Your task to perform on an android device: open a new tab in the chrome app Image 0: 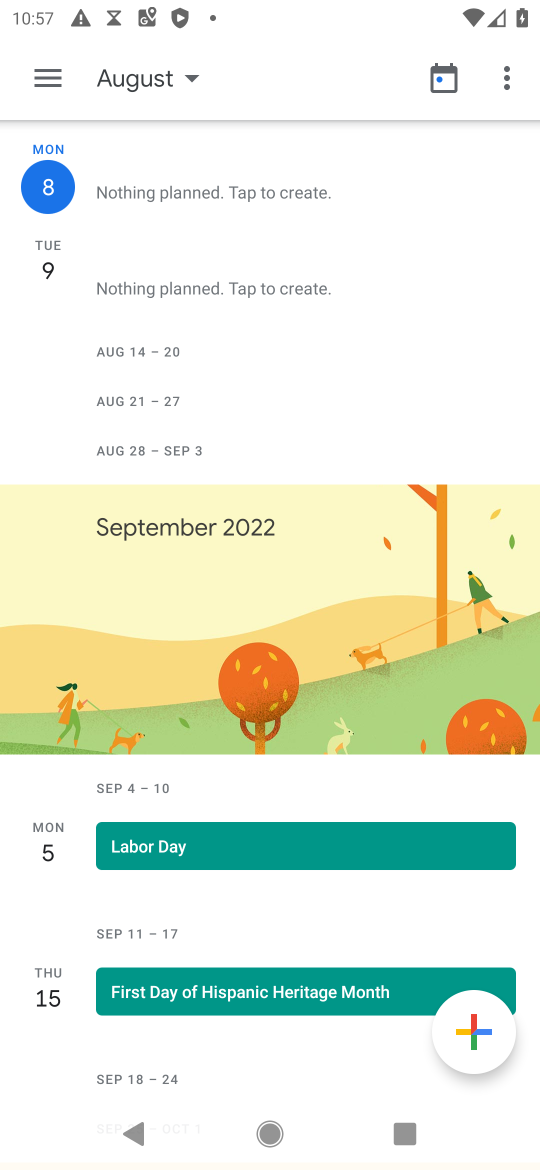
Step 0: press home button
Your task to perform on an android device: open a new tab in the chrome app Image 1: 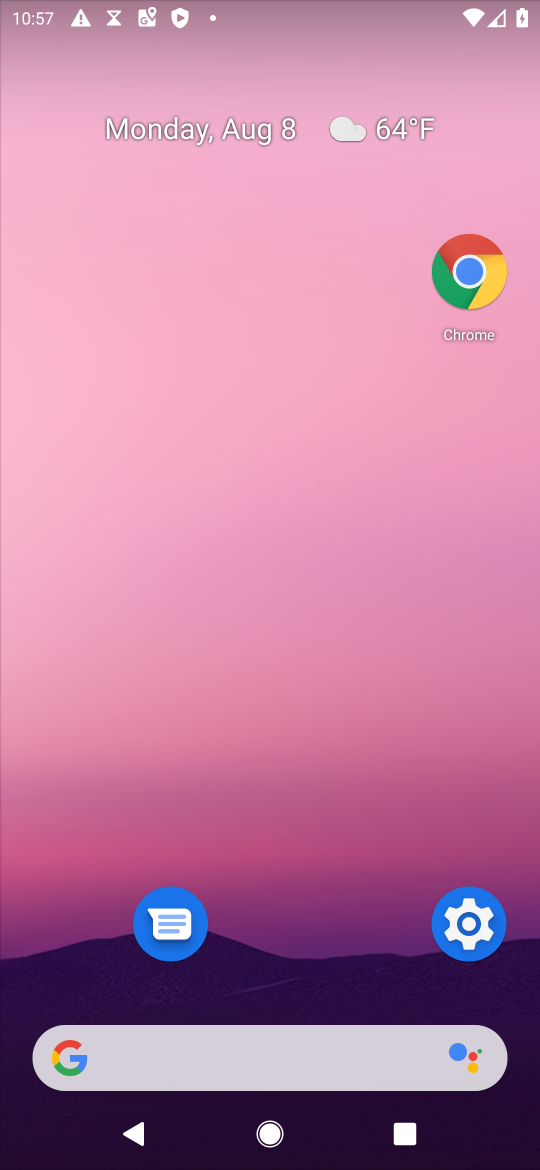
Step 1: click (459, 279)
Your task to perform on an android device: open a new tab in the chrome app Image 2: 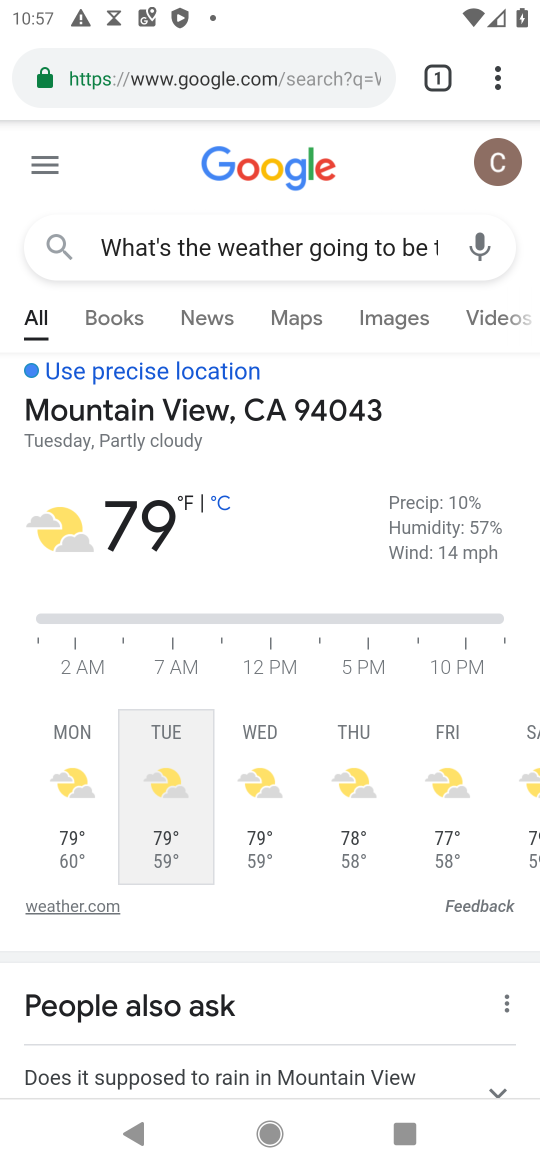
Step 2: click (435, 73)
Your task to perform on an android device: open a new tab in the chrome app Image 3: 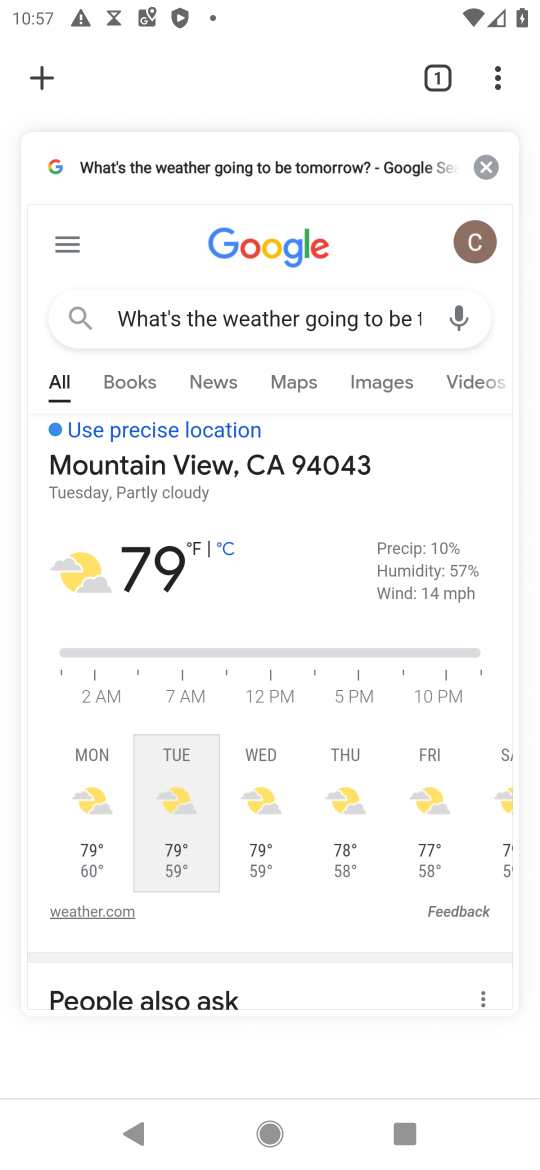
Step 3: click (47, 75)
Your task to perform on an android device: open a new tab in the chrome app Image 4: 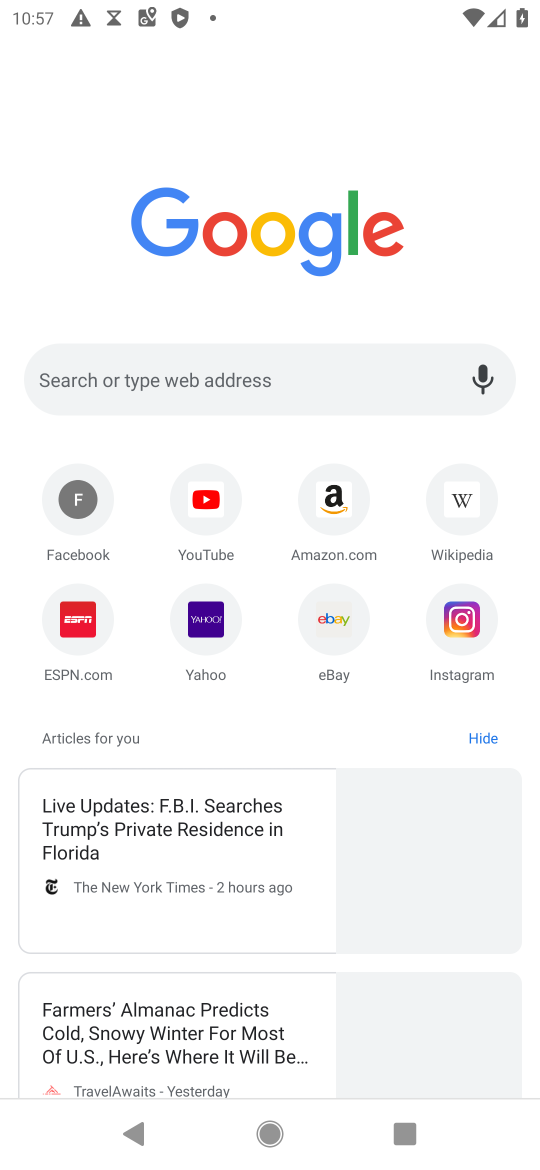
Step 4: task complete